Your task to perform on an android device: stop showing notifications on the lock screen Image 0: 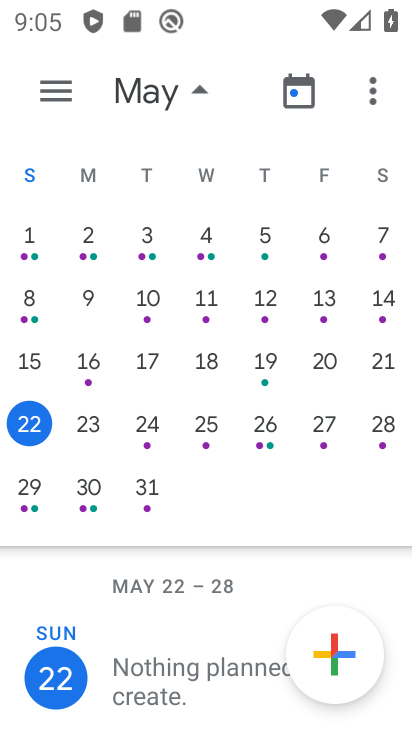
Step 0: press home button
Your task to perform on an android device: stop showing notifications on the lock screen Image 1: 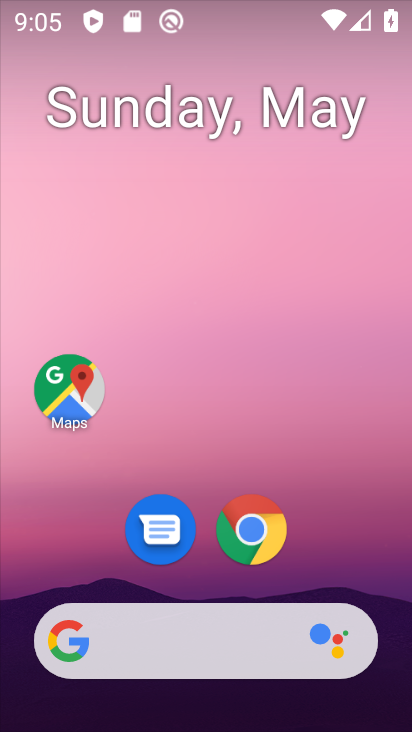
Step 1: drag from (327, 558) to (330, 131)
Your task to perform on an android device: stop showing notifications on the lock screen Image 2: 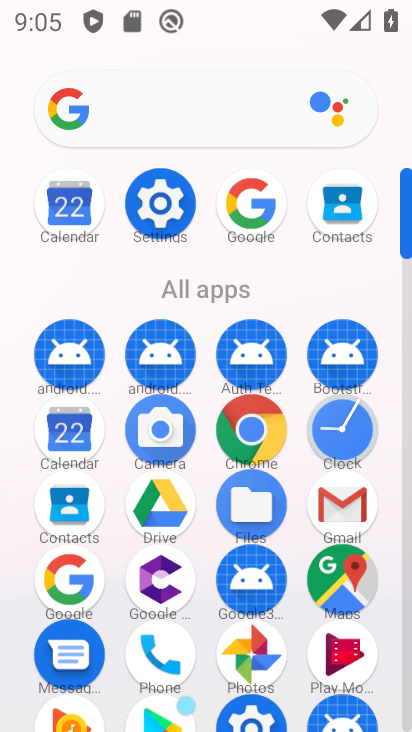
Step 2: click (161, 212)
Your task to perform on an android device: stop showing notifications on the lock screen Image 3: 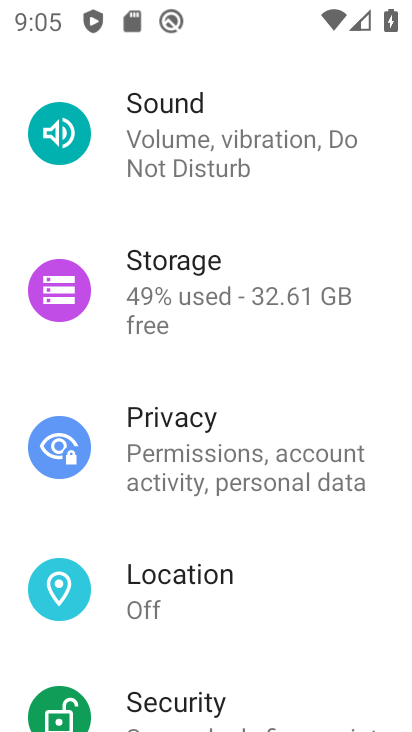
Step 3: drag from (212, 299) to (247, 629)
Your task to perform on an android device: stop showing notifications on the lock screen Image 4: 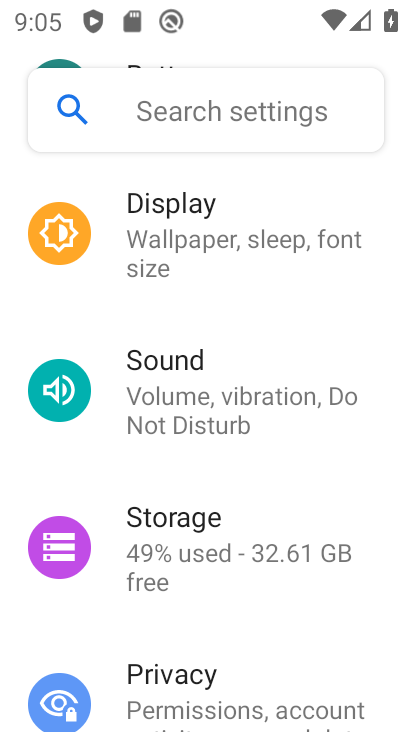
Step 4: drag from (177, 304) to (230, 589)
Your task to perform on an android device: stop showing notifications on the lock screen Image 5: 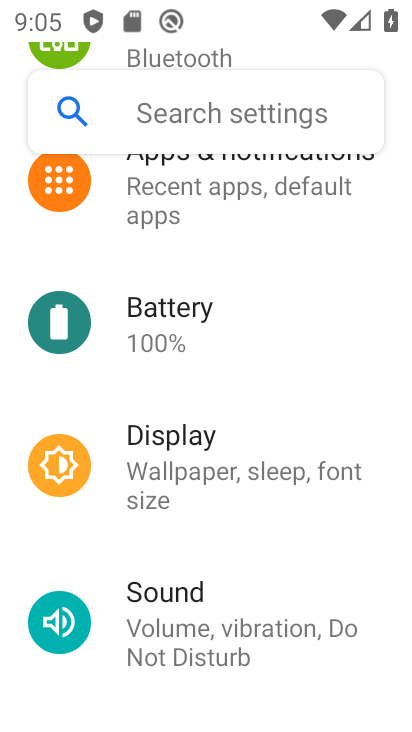
Step 5: drag from (165, 242) to (181, 388)
Your task to perform on an android device: stop showing notifications on the lock screen Image 6: 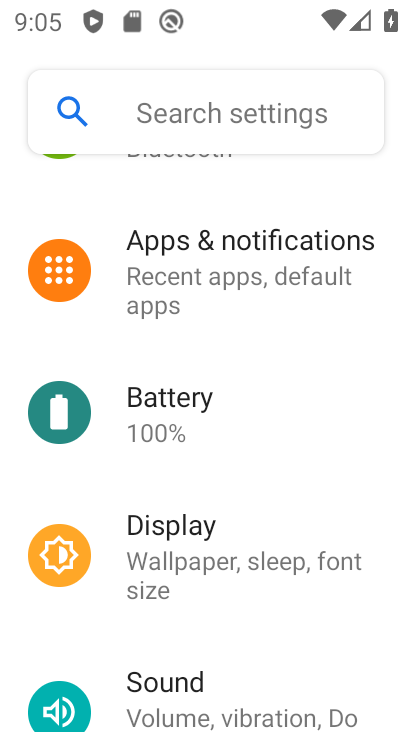
Step 6: click (215, 223)
Your task to perform on an android device: stop showing notifications on the lock screen Image 7: 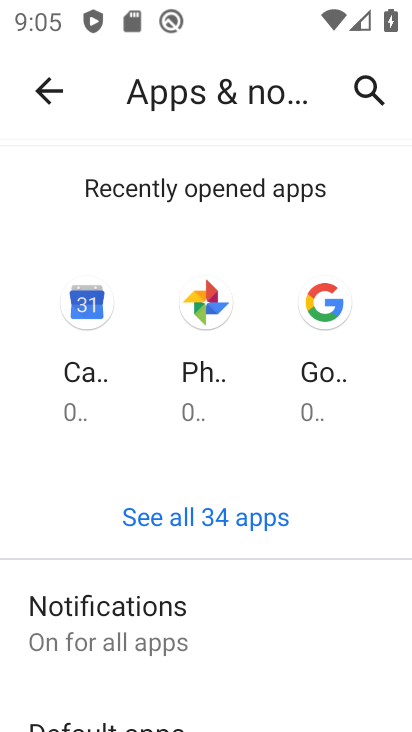
Step 7: drag from (234, 625) to (242, 281)
Your task to perform on an android device: stop showing notifications on the lock screen Image 8: 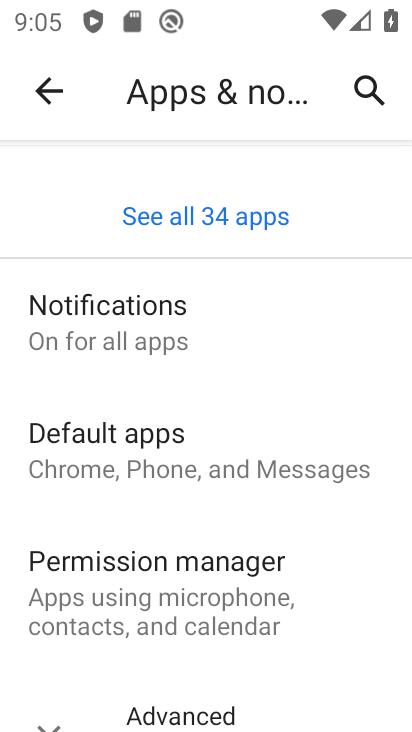
Step 8: click (140, 339)
Your task to perform on an android device: stop showing notifications on the lock screen Image 9: 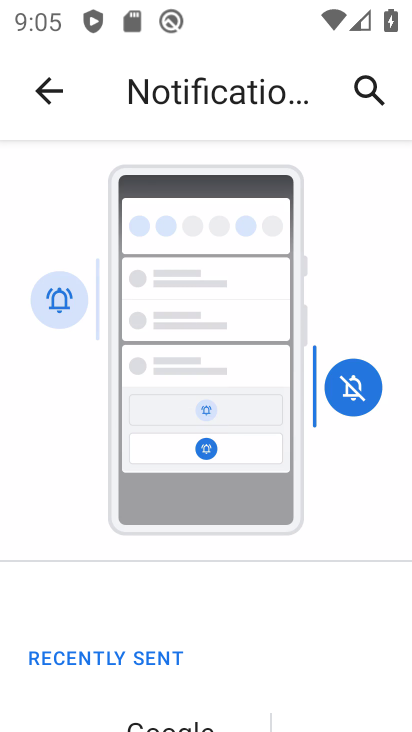
Step 9: drag from (216, 589) to (286, 79)
Your task to perform on an android device: stop showing notifications on the lock screen Image 10: 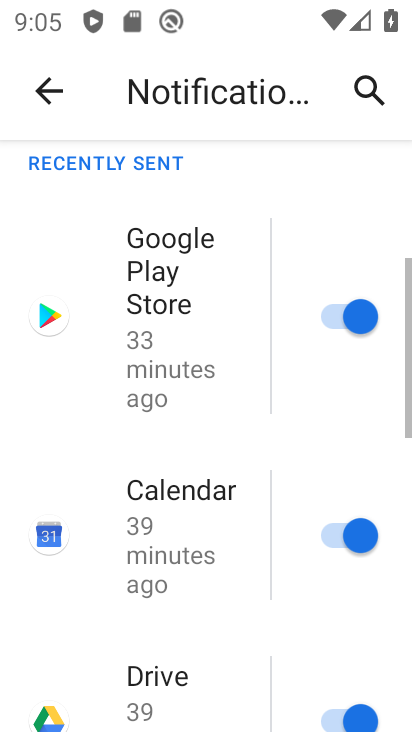
Step 10: drag from (250, 393) to (284, 158)
Your task to perform on an android device: stop showing notifications on the lock screen Image 11: 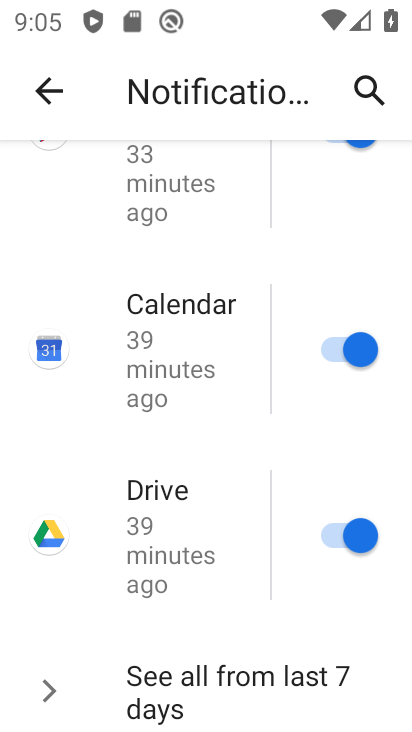
Step 11: drag from (227, 586) to (212, 126)
Your task to perform on an android device: stop showing notifications on the lock screen Image 12: 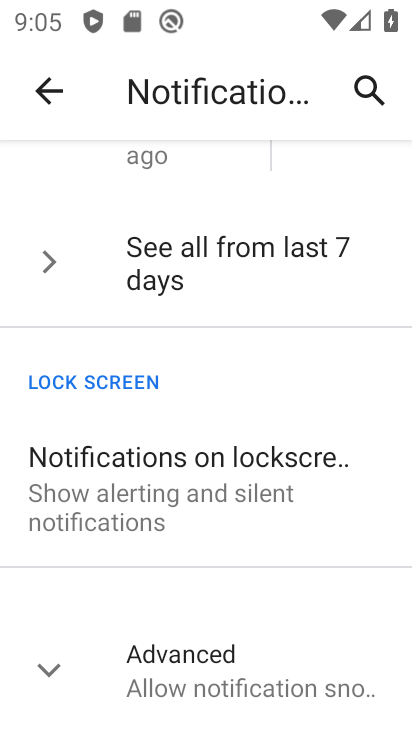
Step 12: click (213, 475)
Your task to perform on an android device: stop showing notifications on the lock screen Image 13: 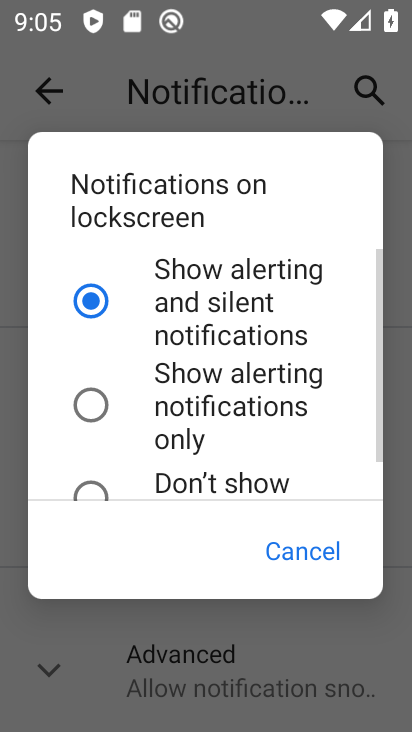
Step 13: click (99, 485)
Your task to perform on an android device: stop showing notifications on the lock screen Image 14: 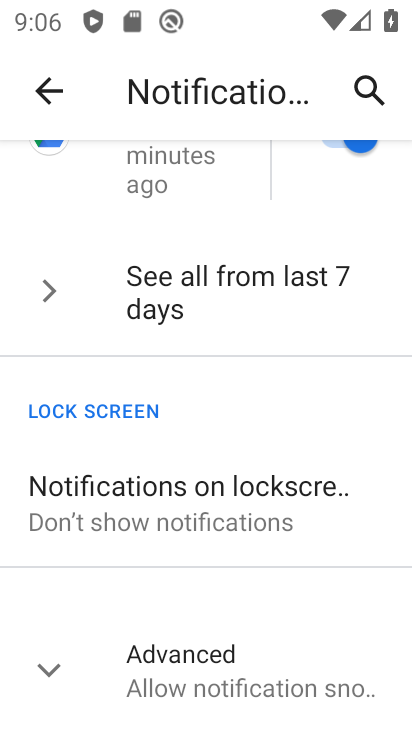
Step 14: task complete